Your task to perform on an android device: choose inbox layout in the gmail app Image 0: 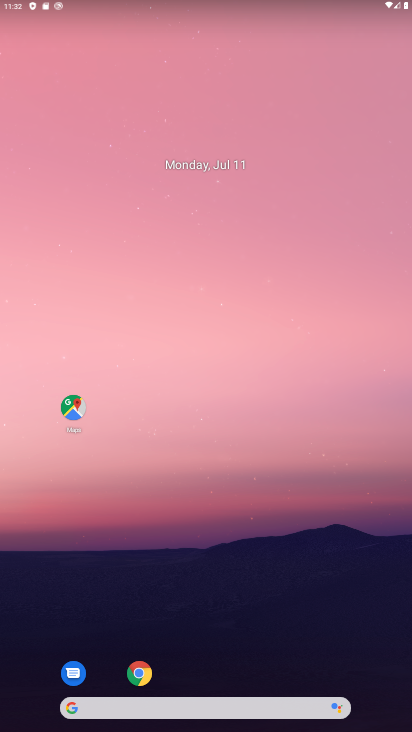
Step 0: drag from (227, 699) to (268, 381)
Your task to perform on an android device: choose inbox layout in the gmail app Image 1: 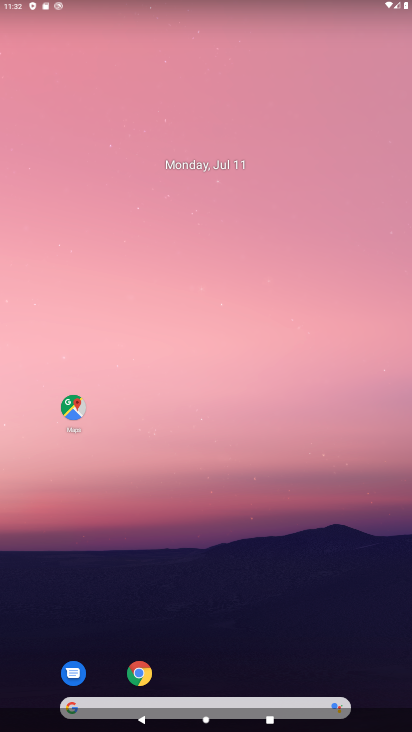
Step 1: drag from (300, 672) to (328, 196)
Your task to perform on an android device: choose inbox layout in the gmail app Image 2: 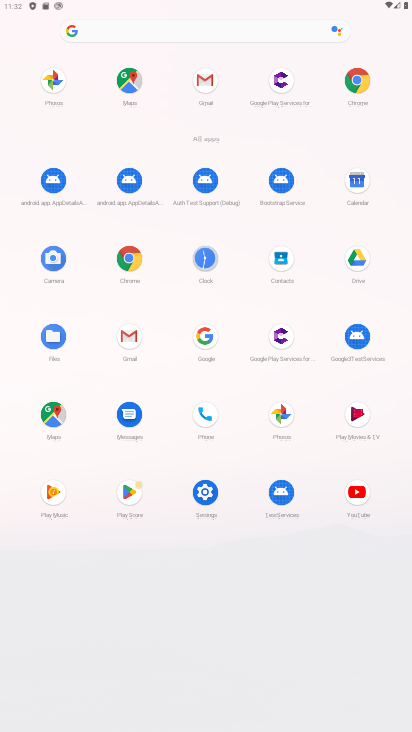
Step 2: click (197, 494)
Your task to perform on an android device: choose inbox layout in the gmail app Image 3: 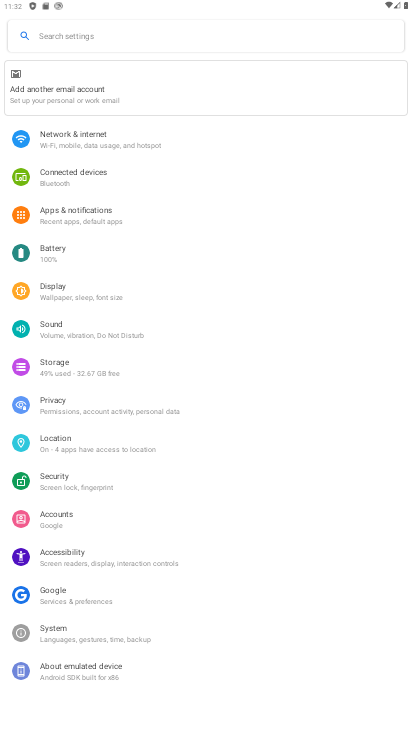
Step 3: click (43, 559)
Your task to perform on an android device: choose inbox layout in the gmail app Image 4: 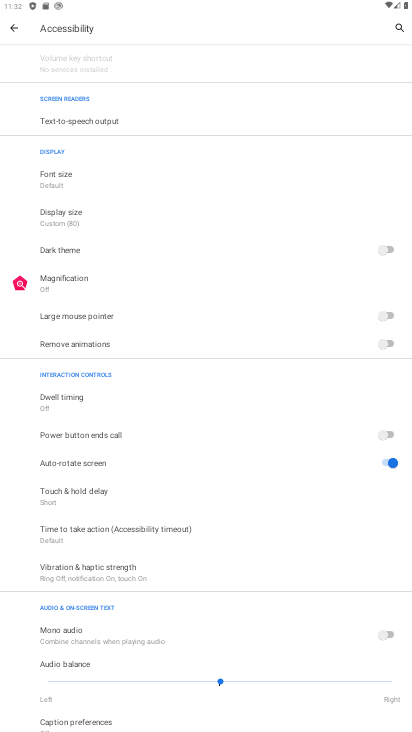
Step 4: click (71, 227)
Your task to perform on an android device: choose inbox layout in the gmail app Image 5: 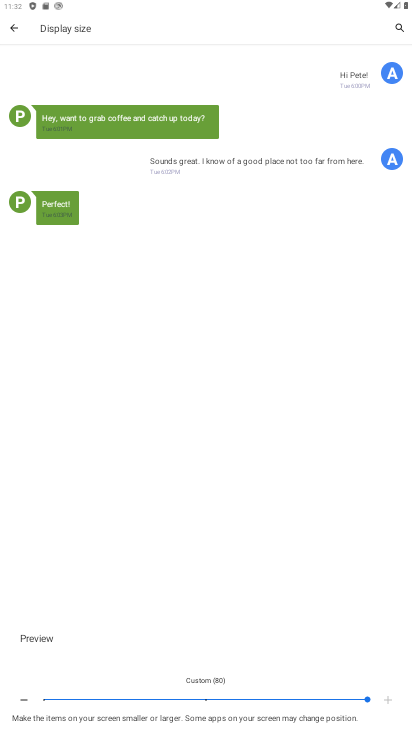
Step 5: click (391, 699)
Your task to perform on an android device: choose inbox layout in the gmail app Image 6: 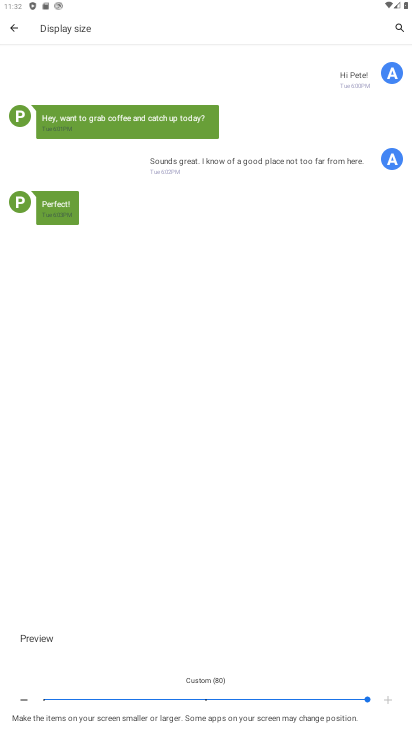
Step 6: click (299, 692)
Your task to perform on an android device: choose inbox layout in the gmail app Image 7: 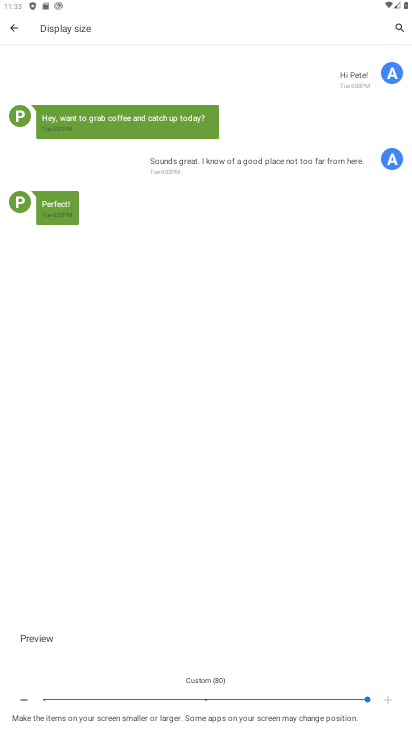
Step 7: click (306, 699)
Your task to perform on an android device: choose inbox layout in the gmail app Image 8: 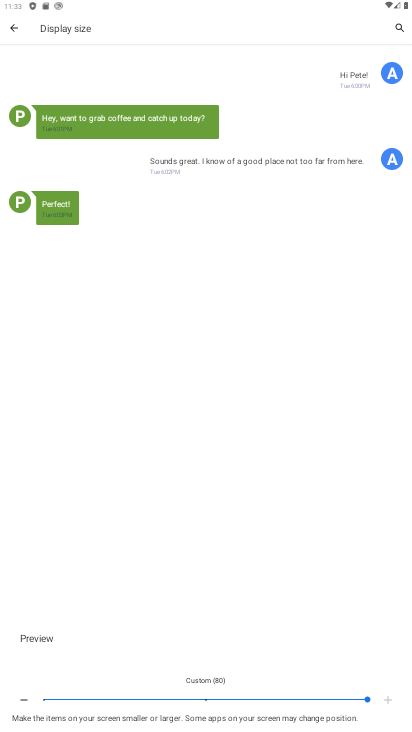
Step 8: click (266, 693)
Your task to perform on an android device: choose inbox layout in the gmail app Image 9: 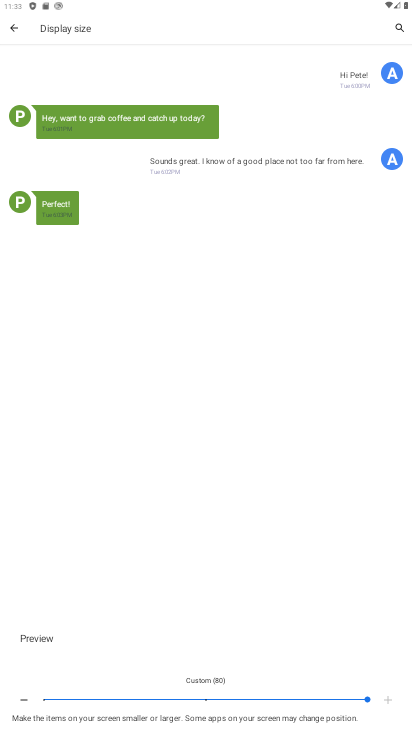
Step 9: click (386, 700)
Your task to perform on an android device: choose inbox layout in the gmail app Image 10: 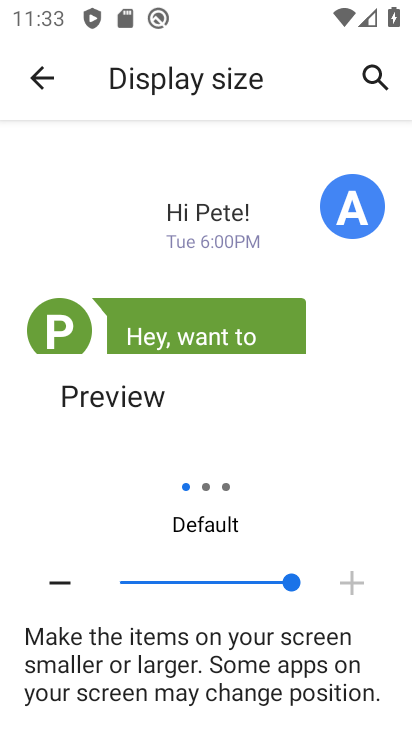
Step 10: task complete